Your task to perform on an android device: open sync settings in chrome Image 0: 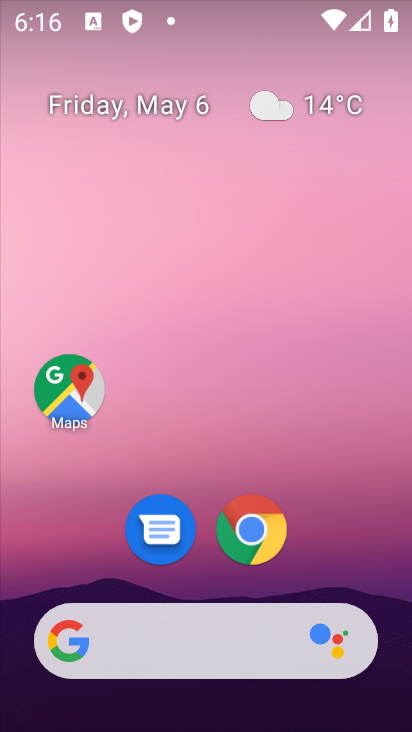
Step 0: click (273, 540)
Your task to perform on an android device: open sync settings in chrome Image 1: 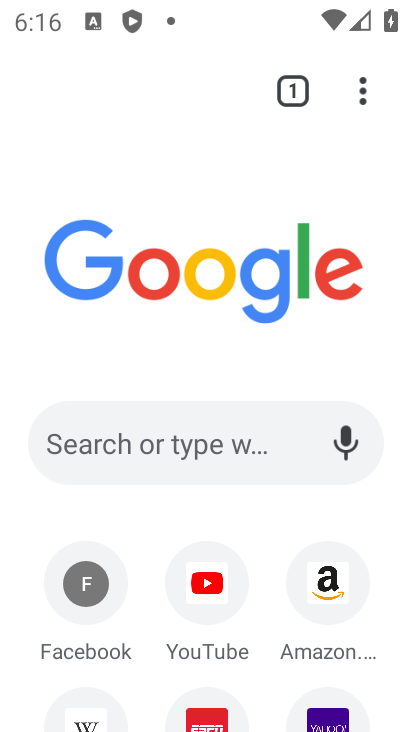
Step 1: click (360, 92)
Your task to perform on an android device: open sync settings in chrome Image 2: 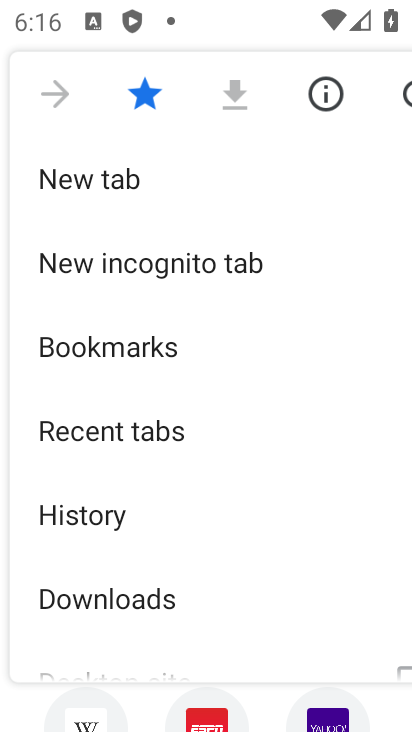
Step 2: drag from (219, 610) to (221, 169)
Your task to perform on an android device: open sync settings in chrome Image 3: 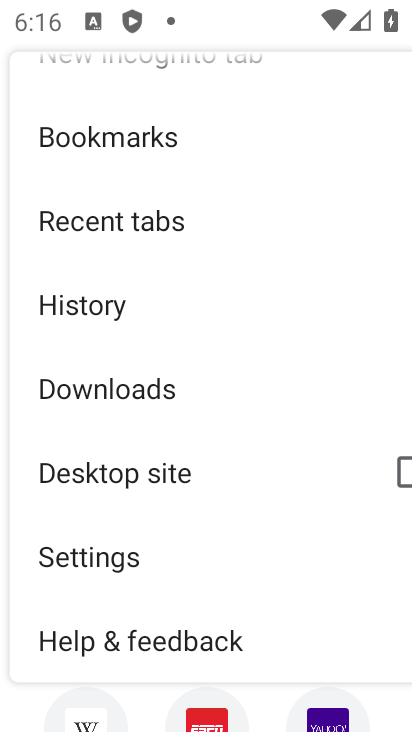
Step 3: click (198, 554)
Your task to perform on an android device: open sync settings in chrome Image 4: 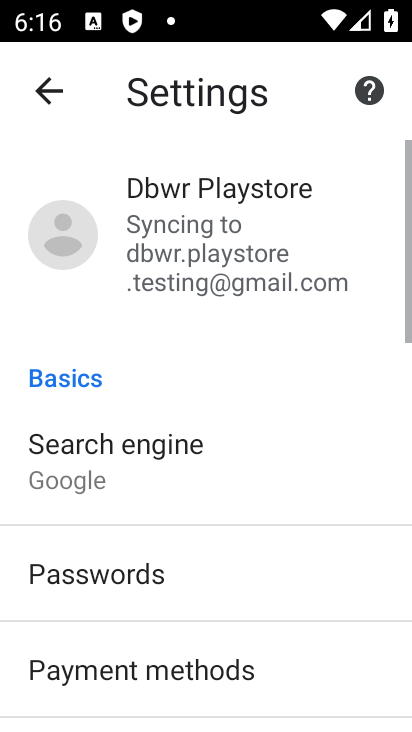
Step 4: drag from (229, 611) to (269, 100)
Your task to perform on an android device: open sync settings in chrome Image 5: 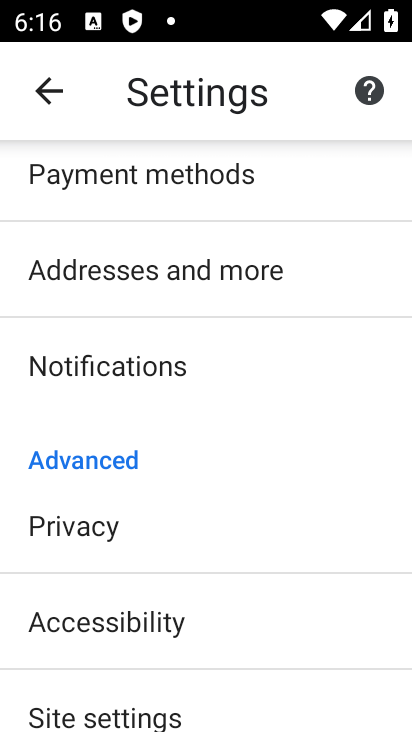
Step 5: click (161, 698)
Your task to perform on an android device: open sync settings in chrome Image 6: 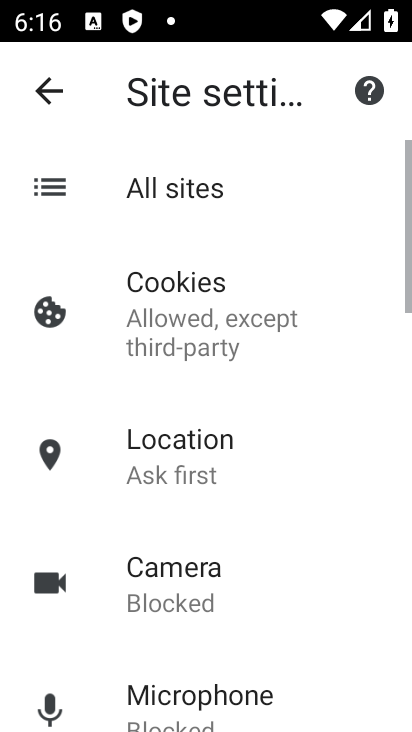
Step 6: drag from (275, 632) to (219, 106)
Your task to perform on an android device: open sync settings in chrome Image 7: 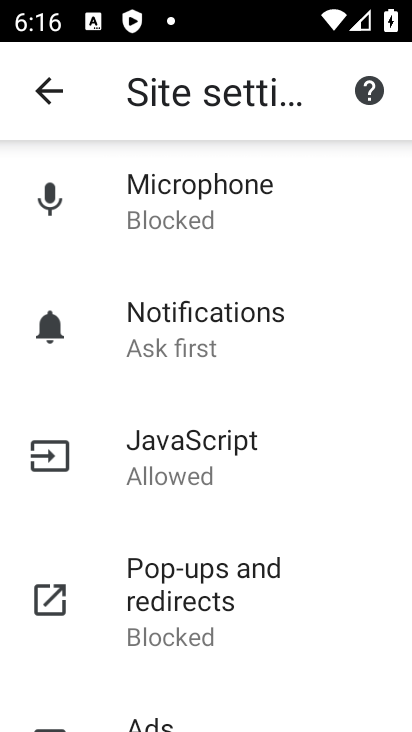
Step 7: drag from (303, 628) to (268, 216)
Your task to perform on an android device: open sync settings in chrome Image 8: 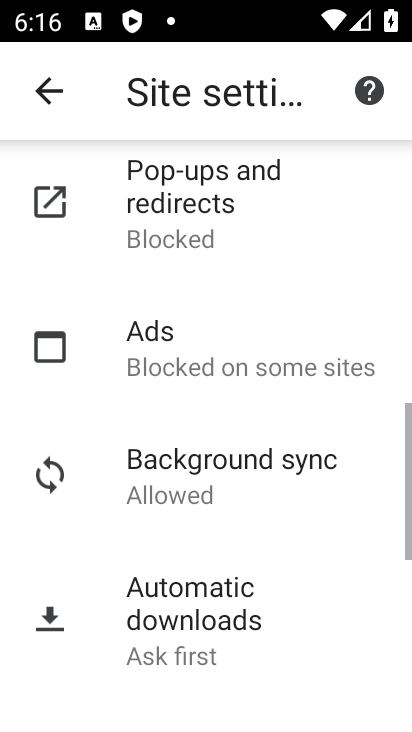
Step 8: click (243, 474)
Your task to perform on an android device: open sync settings in chrome Image 9: 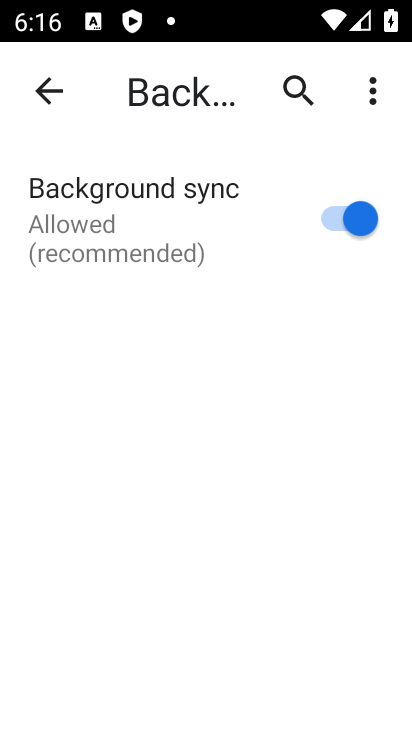
Step 9: task complete